Your task to perform on an android device: change the clock display to analog Image 0: 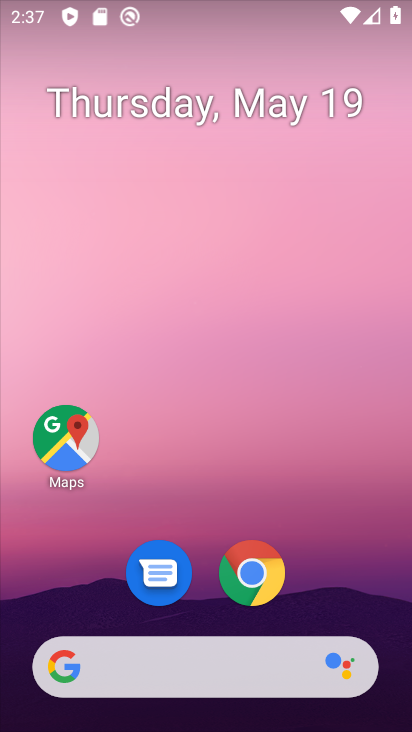
Step 0: drag from (319, 629) to (344, 120)
Your task to perform on an android device: change the clock display to analog Image 1: 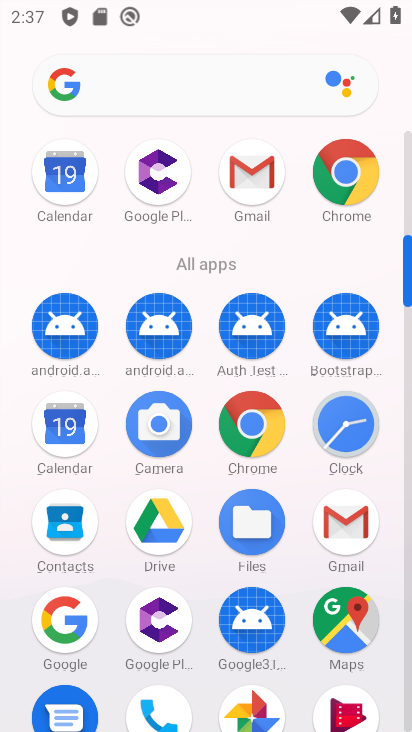
Step 1: click (348, 424)
Your task to perform on an android device: change the clock display to analog Image 2: 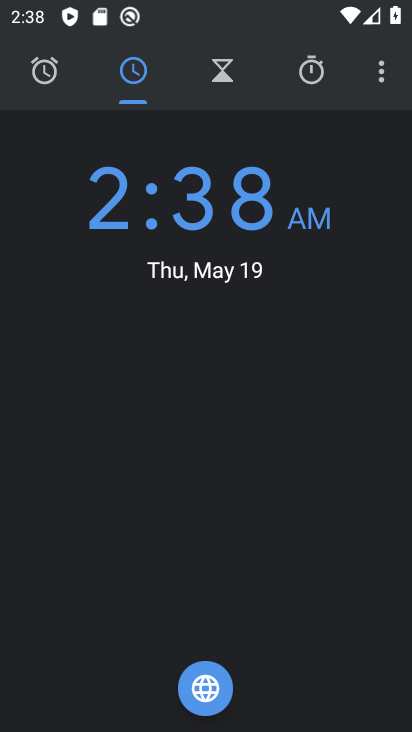
Step 2: click (377, 77)
Your task to perform on an android device: change the clock display to analog Image 3: 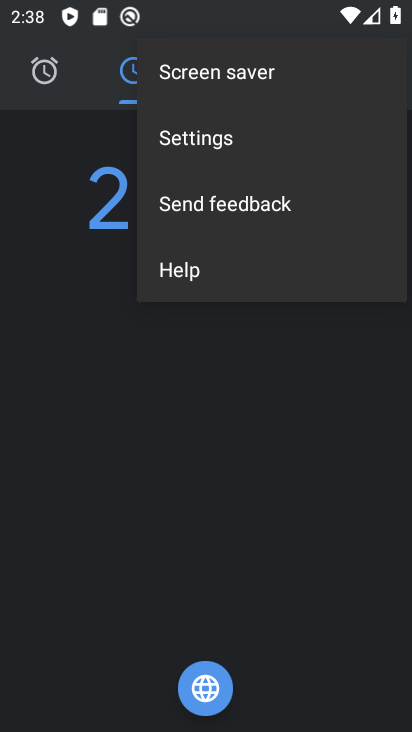
Step 3: click (189, 133)
Your task to perform on an android device: change the clock display to analog Image 4: 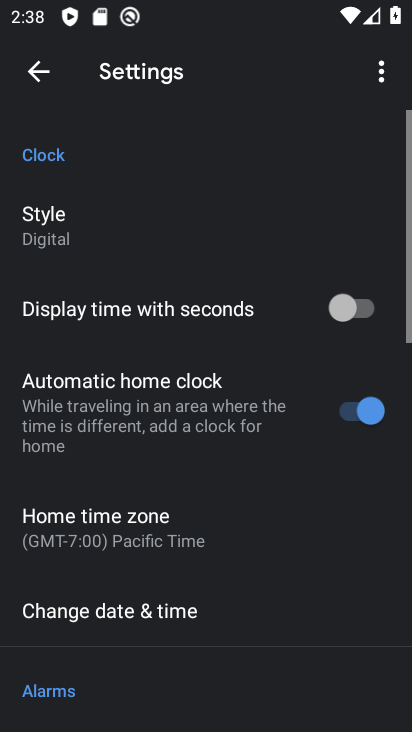
Step 4: click (126, 232)
Your task to perform on an android device: change the clock display to analog Image 5: 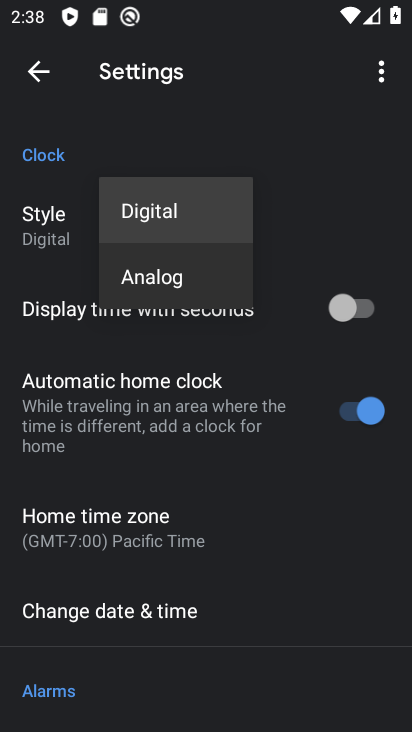
Step 5: click (156, 272)
Your task to perform on an android device: change the clock display to analog Image 6: 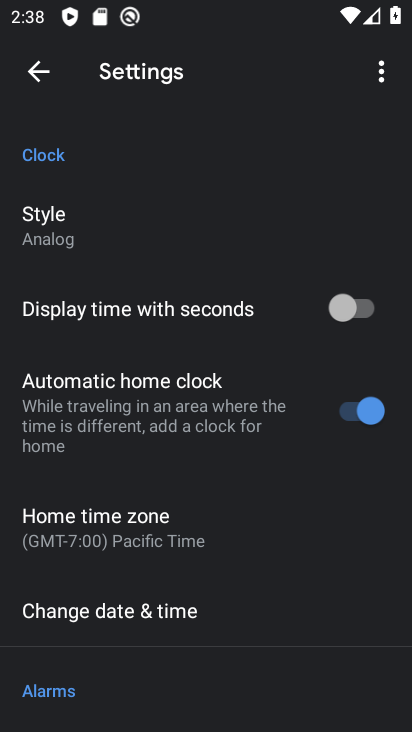
Step 6: task complete